Your task to perform on an android device: see sites visited before in the chrome app Image 0: 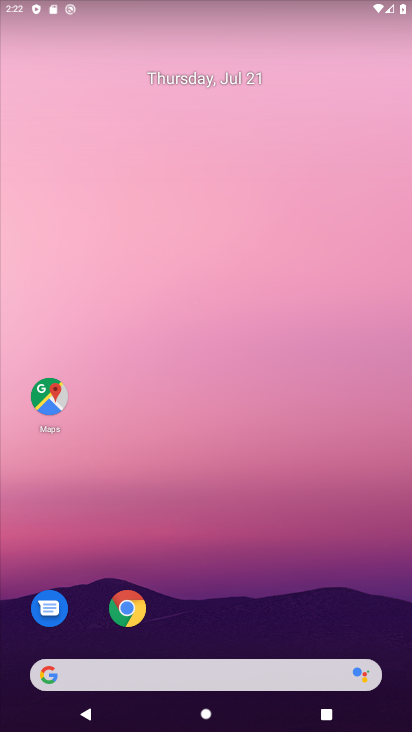
Step 0: click (169, 580)
Your task to perform on an android device: see sites visited before in the chrome app Image 1: 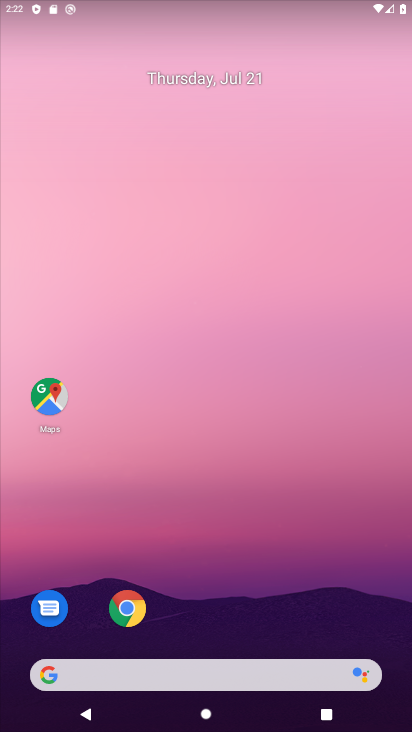
Step 1: click (142, 613)
Your task to perform on an android device: see sites visited before in the chrome app Image 2: 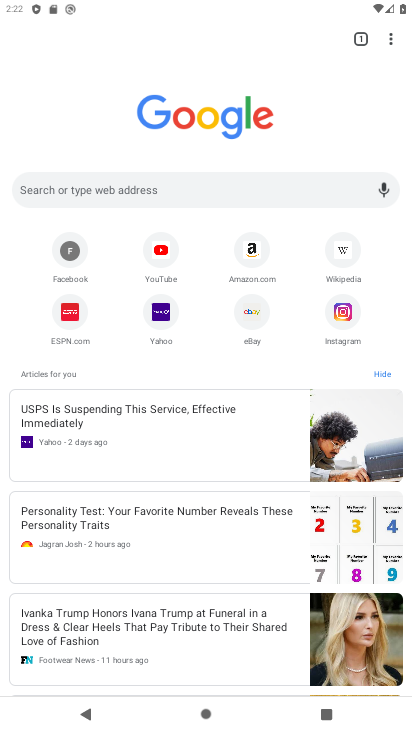
Step 2: task complete